Your task to perform on an android device: open chrome privacy settings Image 0: 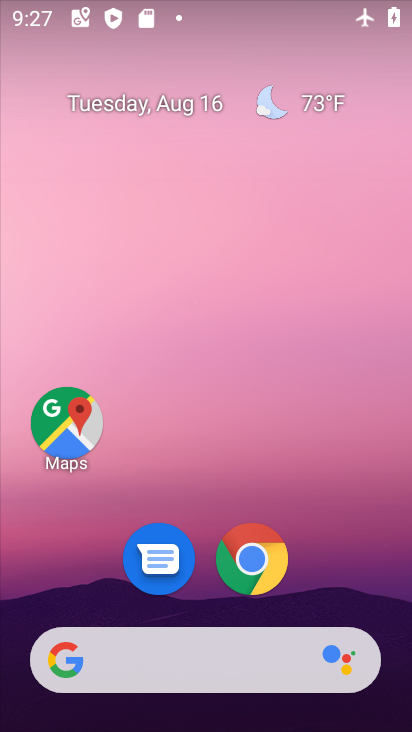
Step 0: drag from (300, 550) to (270, 10)
Your task to perform on an android device: open chrome privacy settings Image 1: 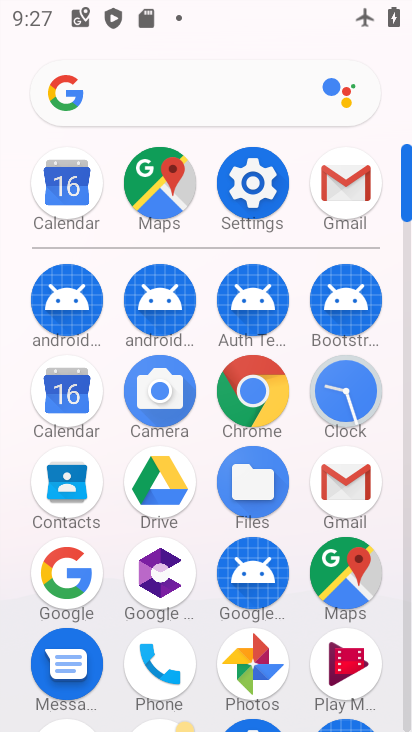
Step 1: click (252, 188)
Your task to perform on an android device: open chrome privacy settings Image 2: 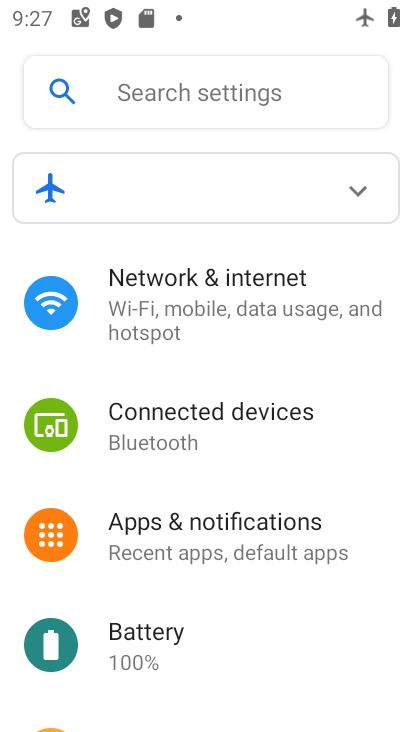
Step 2: drag from (199, 672) to (195, 221)
Your task to perform on an android device: open chrome privacy settings Image 3: 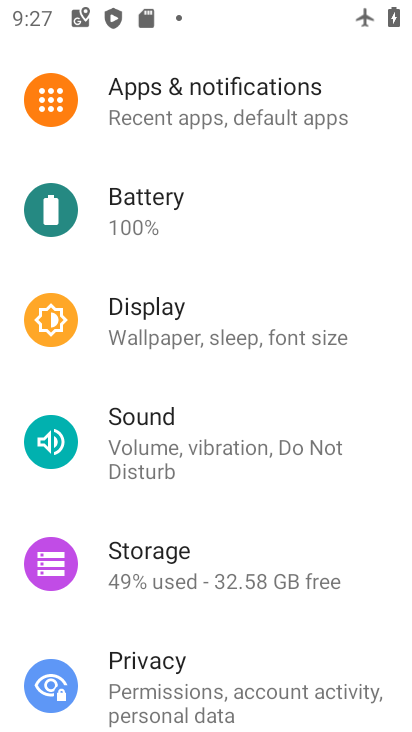
Step 3: drag from (193, 657) to (195, 214)
Your task to perform on an android device: open chrome privacy settings Image 4: 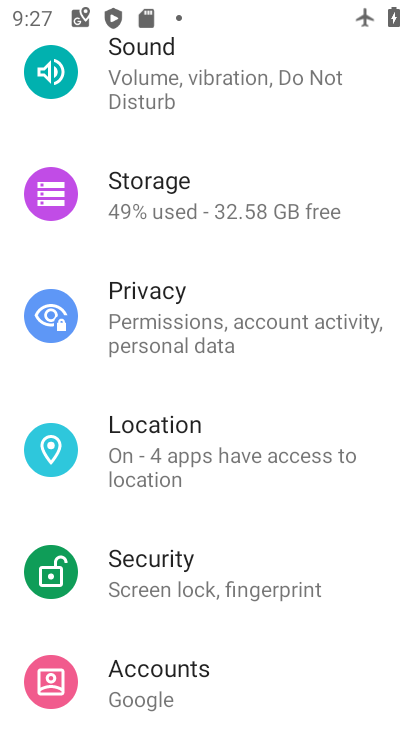
Step 4: click (143, 309)
Your task to perform on an android device: open chrome privacy settings Image 5: 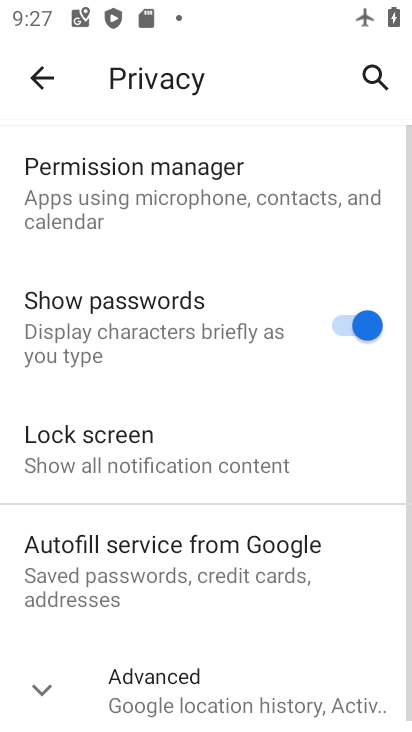
Step 5: task complete